Your task to perform on an android device: allow cookies in the chrome app Image 0: 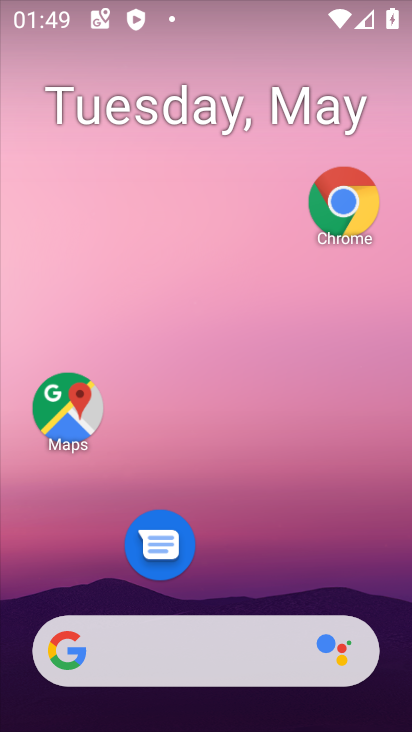
Step 0: click (344, 202)
Your task to perform on an android device: allow cookies in the chrome app Image 1: 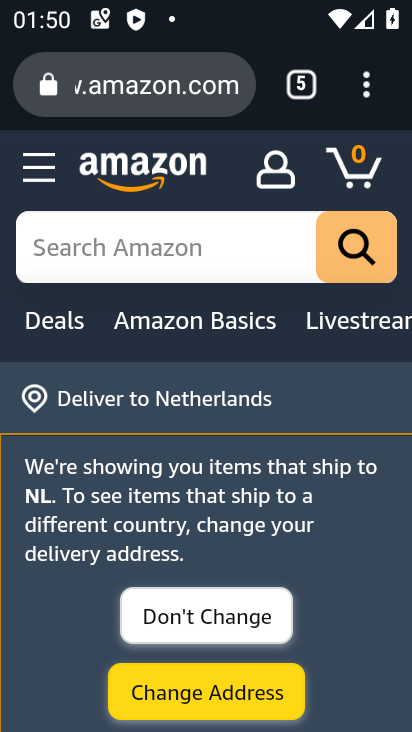
Step 1: click (387, 78)
Your task to perform on an android device: allow cookies in the chrome app Image 2: 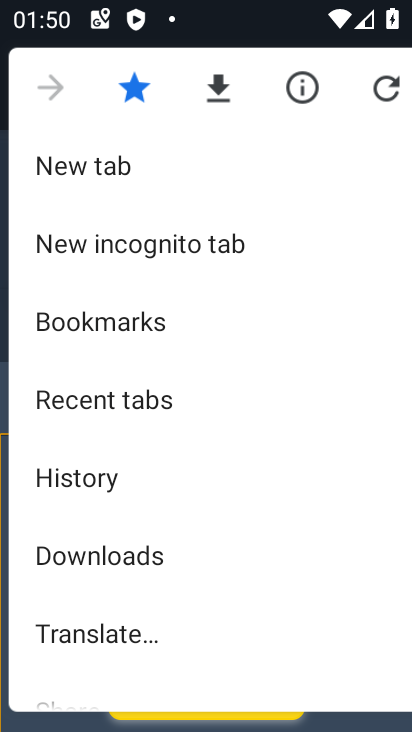
Step 2: drag from (101, 642) to (177, 138)
Your task to perform on an android device: allow cookies in the chrome app Image 3: 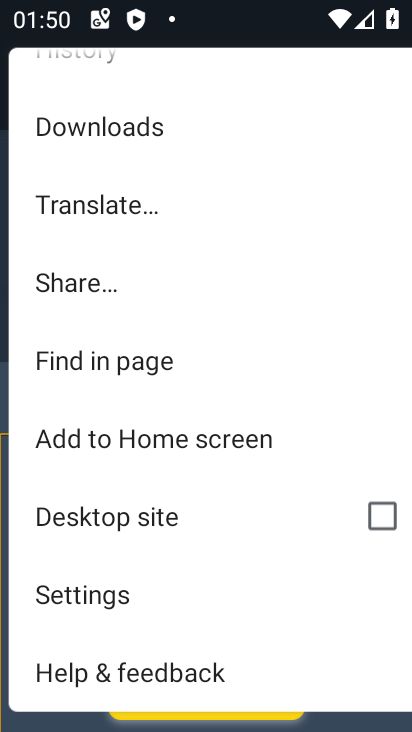
Step 3: click (158, 607)
Your task to perform on an android device: allow cookies in the chrome app Image 4: 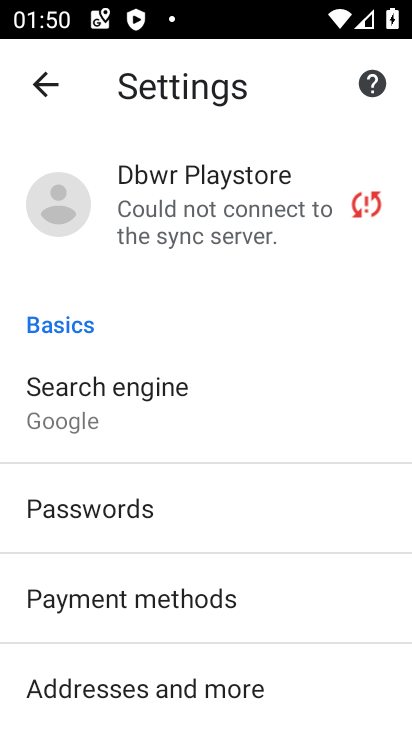
Step 4: drag from (158, 607) to (190, 85)
Your task to perform on an android device: allow cookies in the chrome app Image 5: 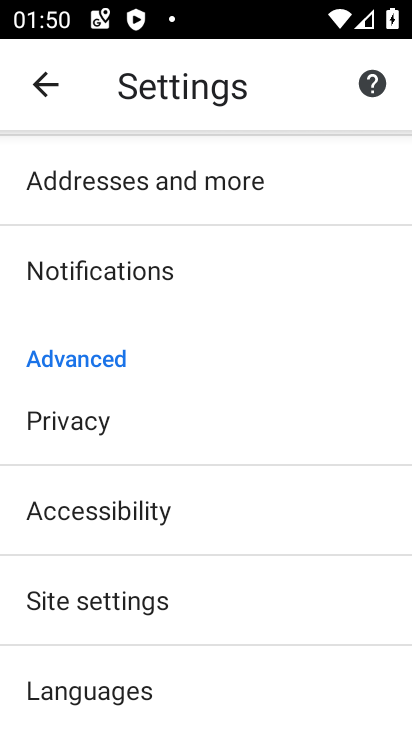
Step 5: click (217, 575)
Your task to perform on an android device: allow cookies in the chrome app Image 6: 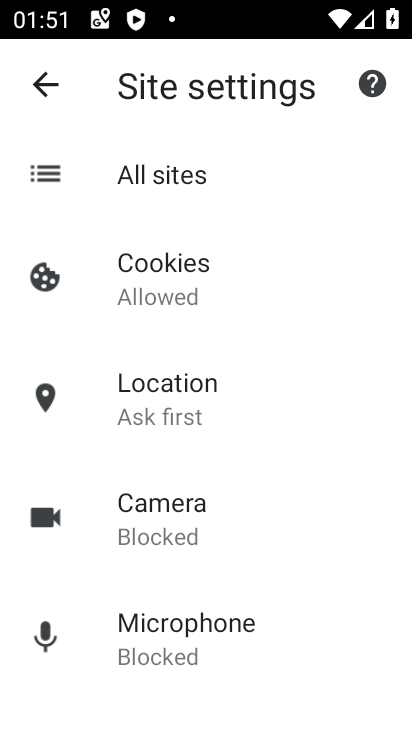
Step 6: click (204, 304)
Your task to perform on an android device: allow cookies in the chrome app Image 7: 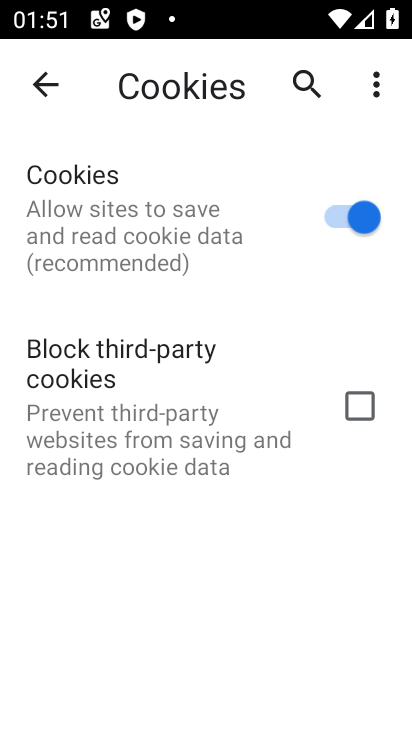
Step 7: task complete